Your task to perform on an android device: turn on location history Image 0: 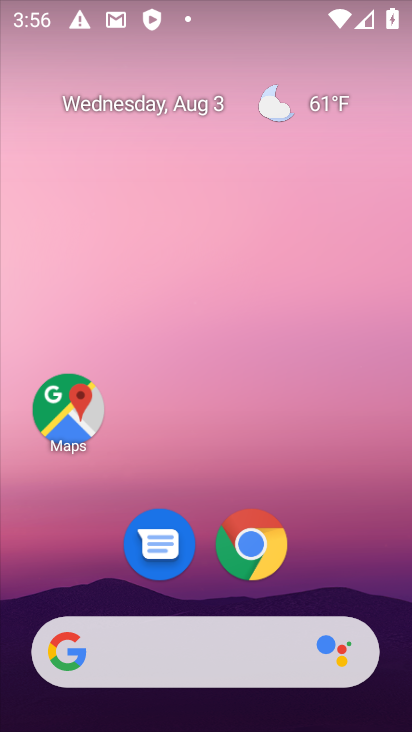
Step 0: drag from (335, 582) to (312, 54)
Your task to perform on an android device: turn on location history Image 1: 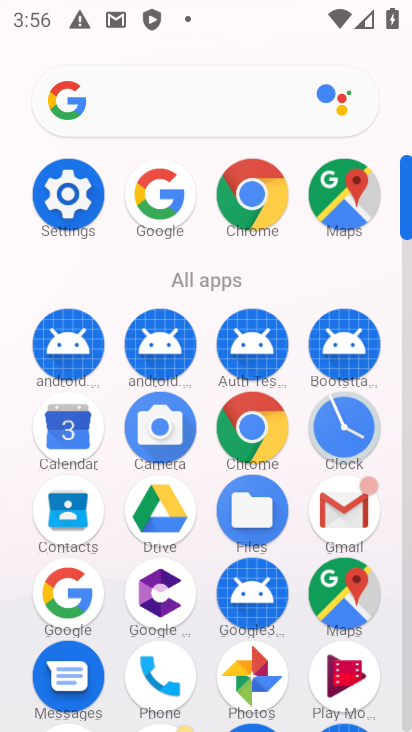
Step 1: click (340, 187)
Your task to perform on an android device: turn on location history Image 2: 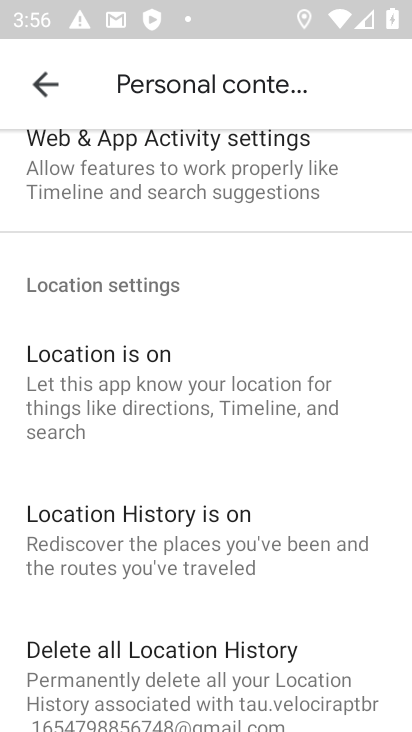
Step 2: click (138, 529)
Your task to perform on an android device: turn on location history Image 3: 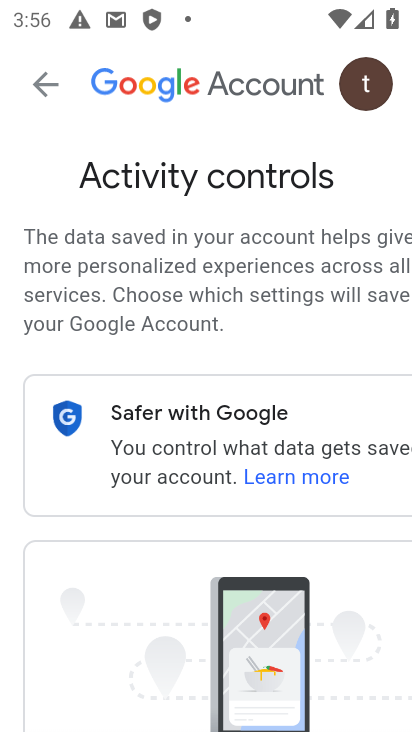
Step 3: task complete